Your task to perform on an android device: Add "logitech g pro" to the cart on ebay, then select checkout. Image 0: 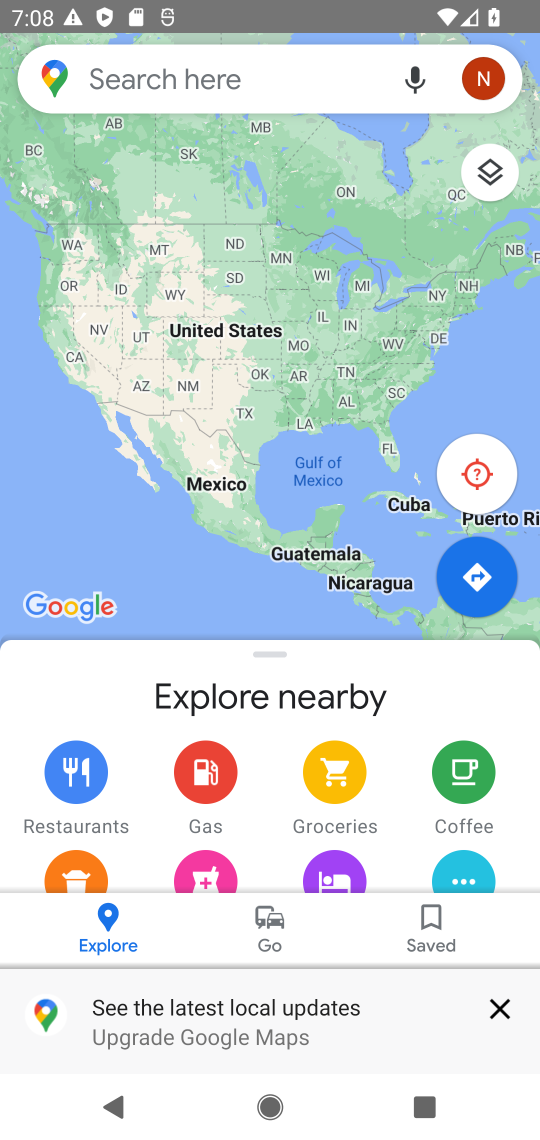
Step 0: press home button
Your task to perform on an android device: Add "logitech g pro" to the cart on ebay, then select checkout. Image 1: 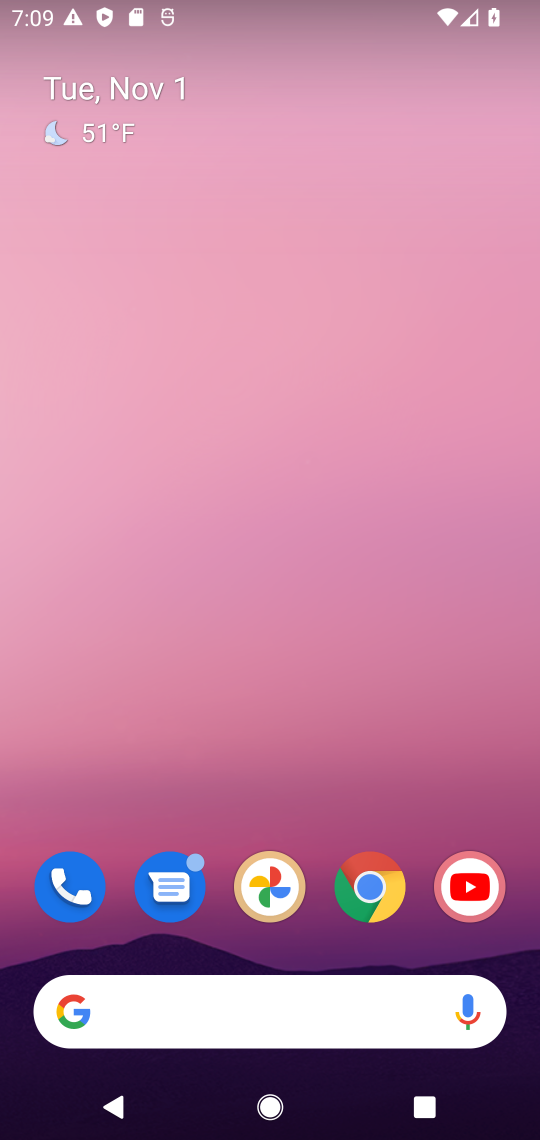
Step 1: drag from (191, 690) to (193, 65)
Your task to perform on an android device: Add "logitech g pro" to the cart on ebay, then select checkout. Image 2: 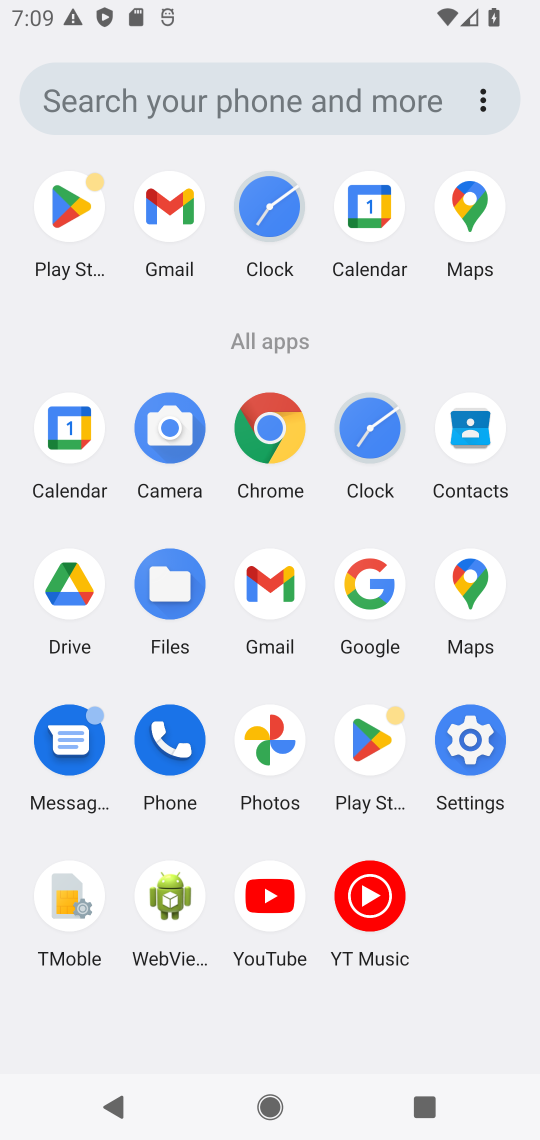
Step 2: click (367, 565)
Your task to perform on an android device: Add "logitech g pro" to the cart on ebay, then select checkout. Image 3: 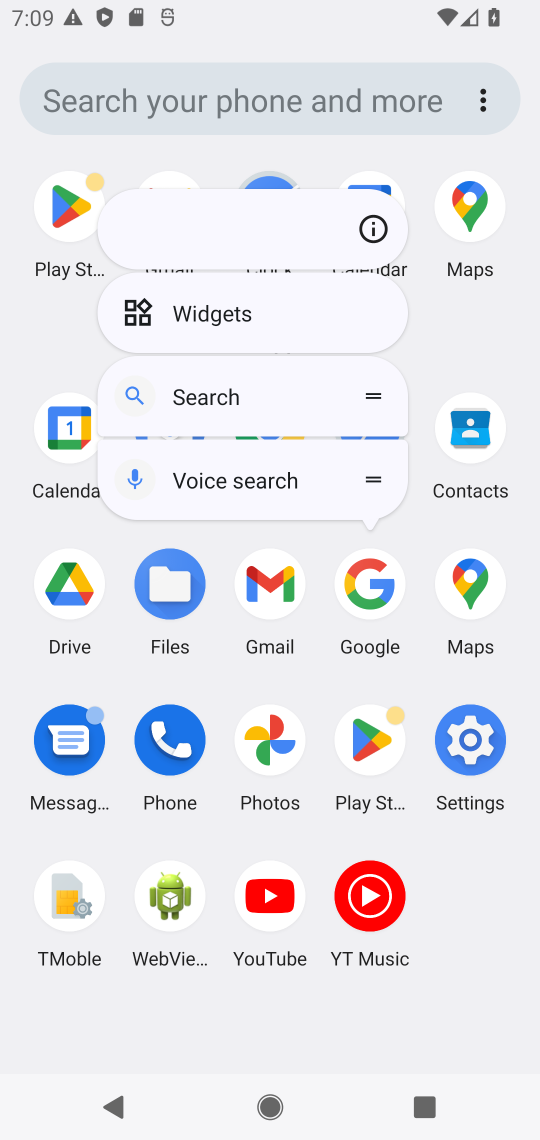
Step 3: click (367, 565)
Your task to perform on an android device: Add "logitech g pro" to the cart on ebay, then select checkout. Image 4: 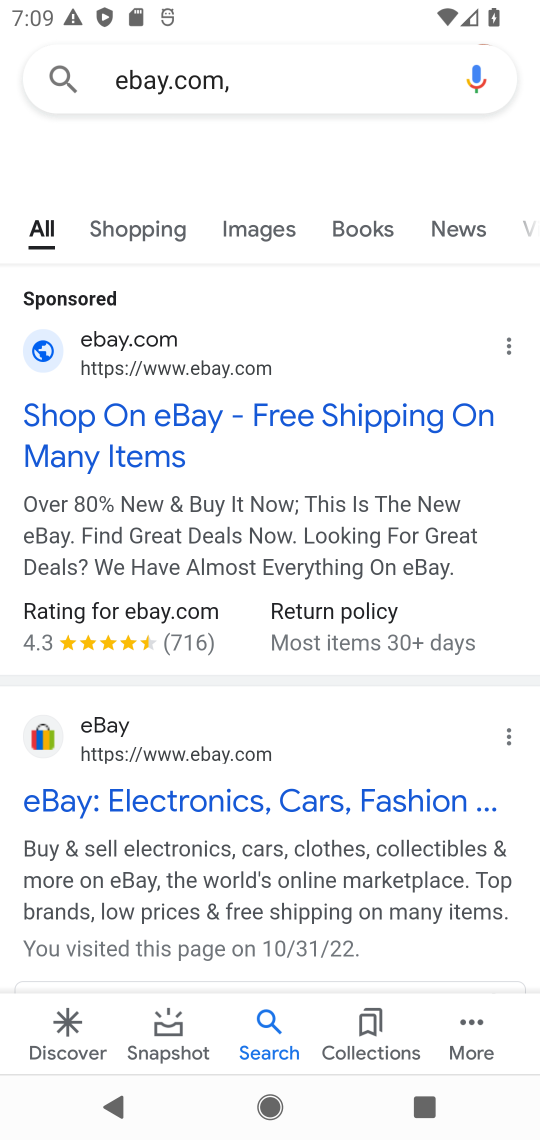
Step 4: click (125, 802)
Your task to perform on an android device: Add "logitech g pro" to the cart on ebay, then select checkout. Image 5: 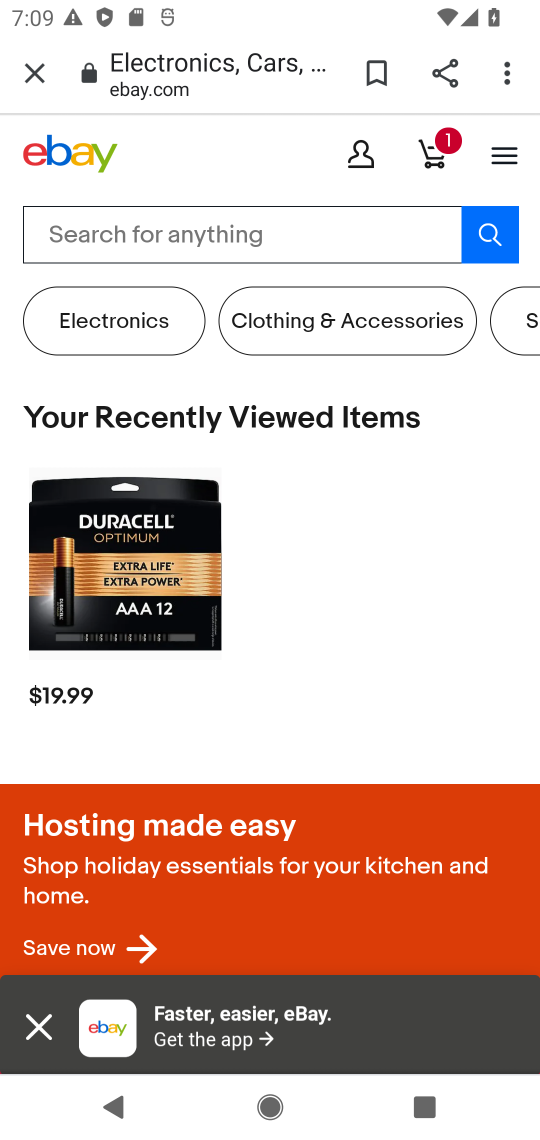
Step 5: click (252, 210)
Your task to perform on an android device: Add "logitech g pro" to the cart on ebay, then select checkout. Image 6: 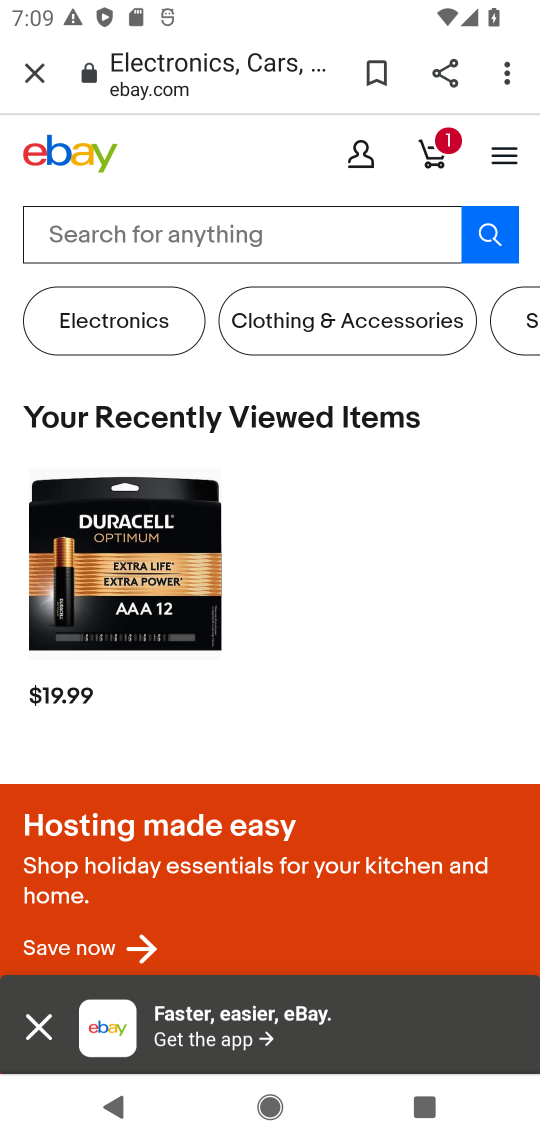
Step 6: type "logitech g pro "
Your task to perform on an android device: Add "logitech g pro" to the cart on ebay, then select checkout. Image 7: 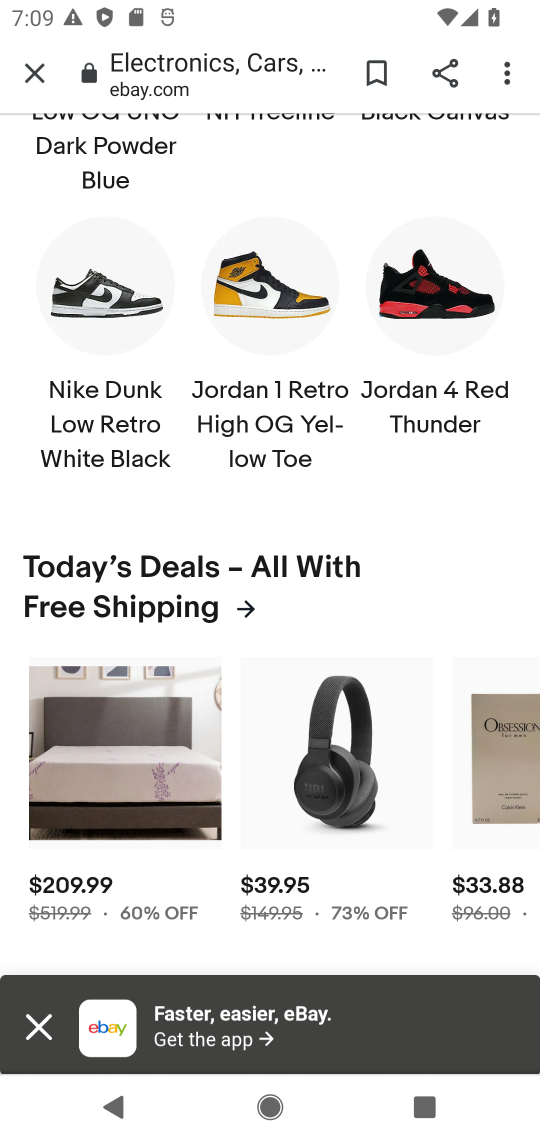
Step 7: drag from (139, 153) to (180, 936)
Your task to perform on an android device: Add "logitech g pro" to the cart on ebay, then select checkout. Image 8: 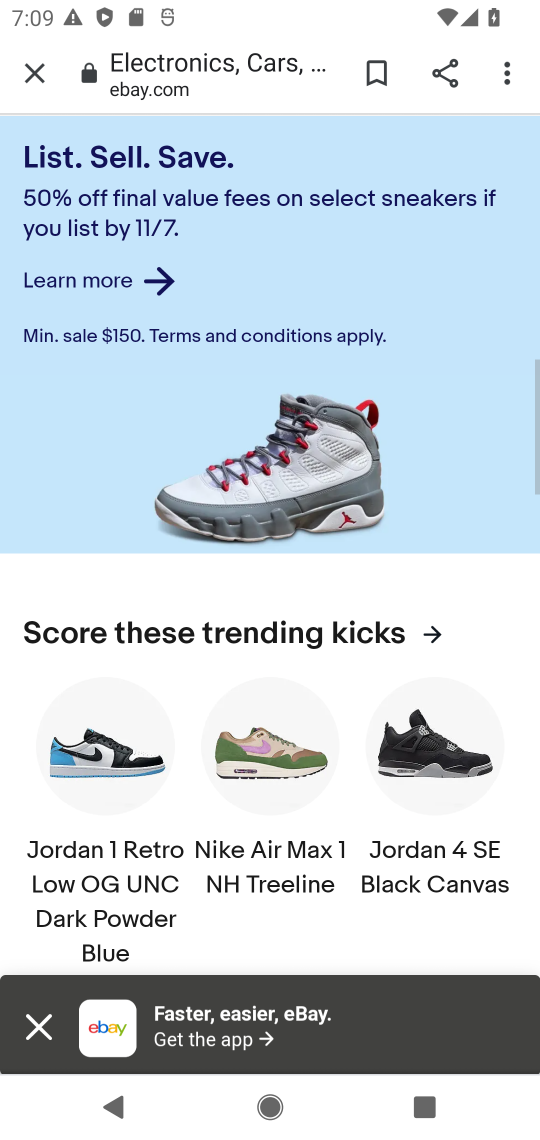
Step 8: drag from (232, 256) to (206, 1028)
Your task to perform on an android device: Add "logitech g pro" to the cart on ebay, then select checkout. Image 9: 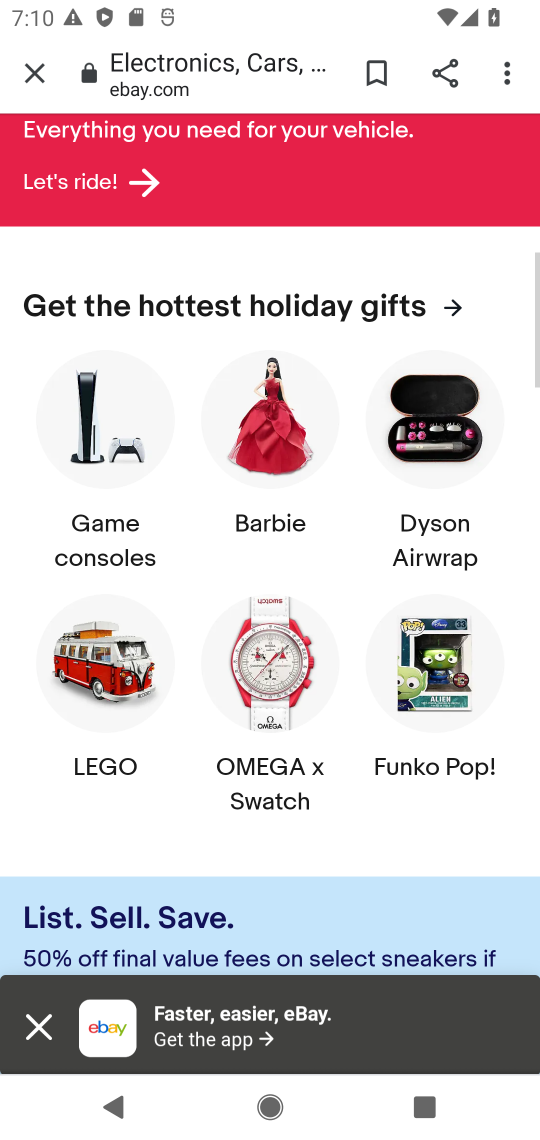
Step 9: drag from (295, 222) to (257, 804)
Your task to perform on an android device: Add "logitech g pro" to the cart on ebay, then select checkout. Image 10: 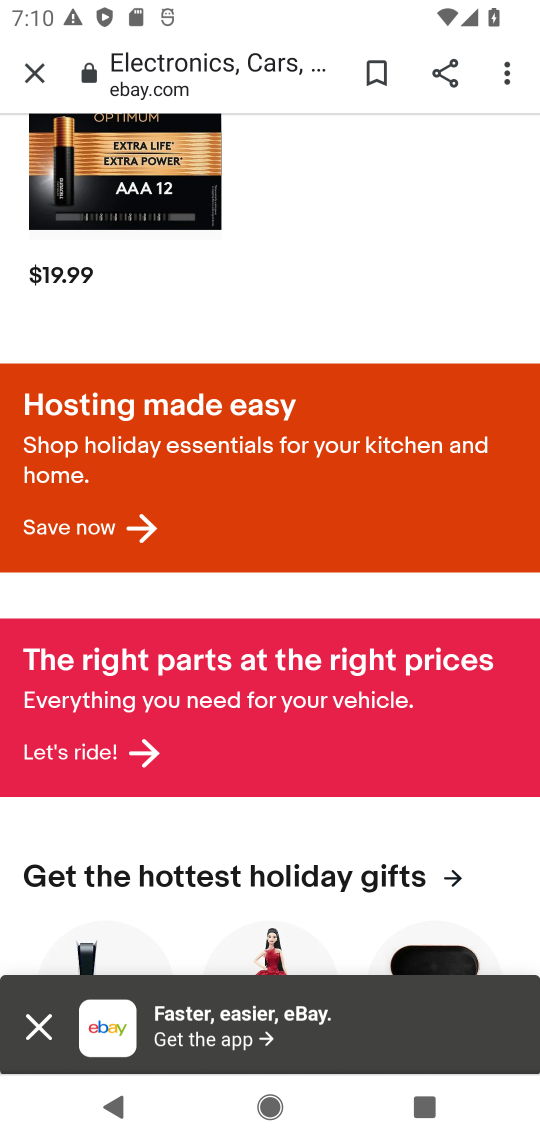
Step 10: click (9, 999)
Your task to perform on an android device: Add "logitech g pro" to the cart on ebay, then select checkout. Image 11: 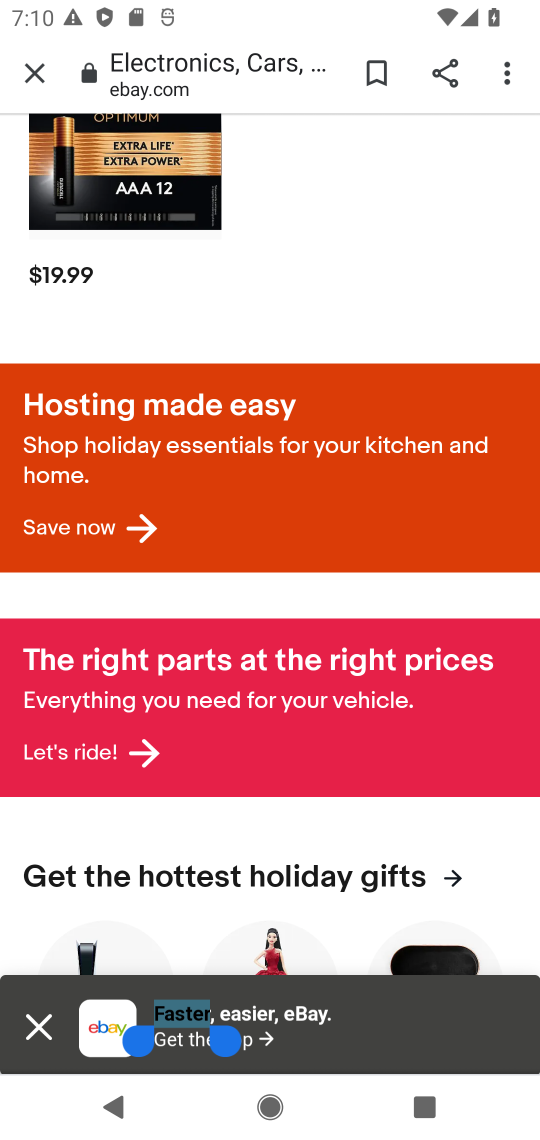
Step 11: click (26, 1013)
Your task to perform on an android device: Add "logitech g pro" to the cart on ebay, then select checkout. Image 12: 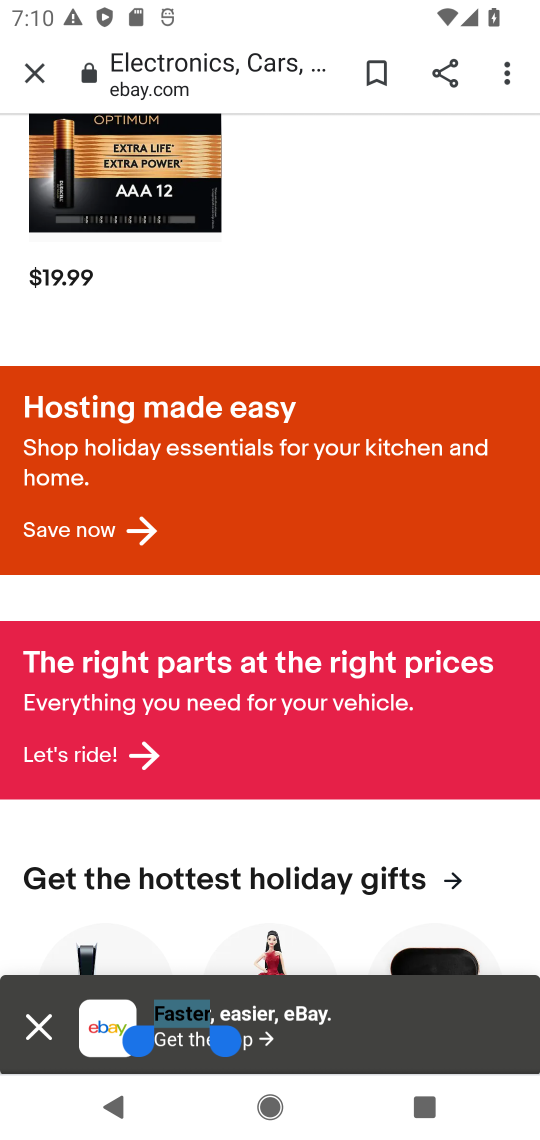
Step 12: click (45, 1037)
Your task to perform on an android device: Add "logitech g pro" to the cart on ebay, then select checkout. Image 13: 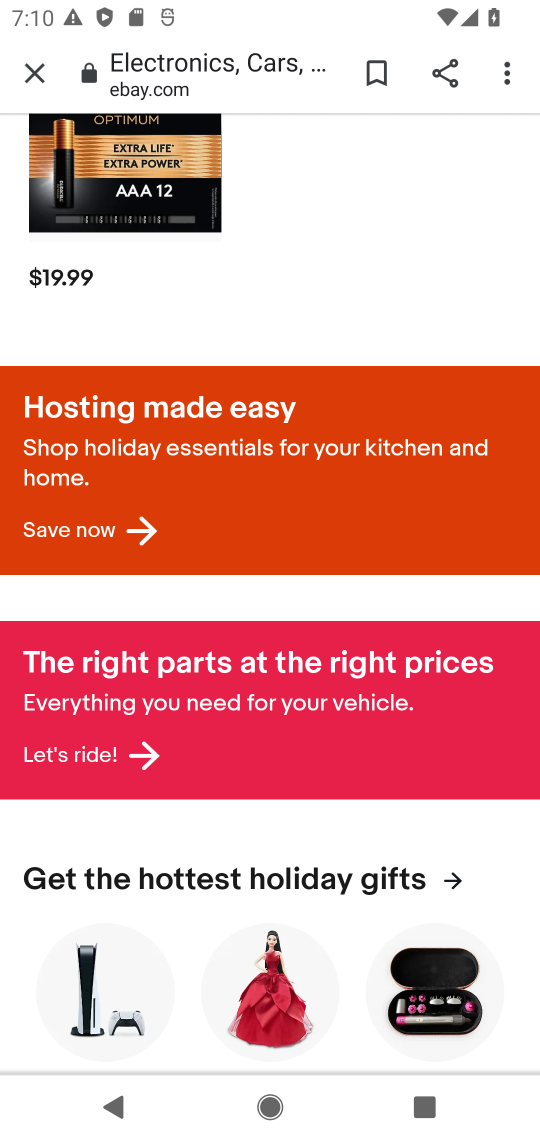
Step 13: press back button
Your task to perform on an android device: Add "logitech g pro" to the cart on ebay, then select checkout. Image 14: 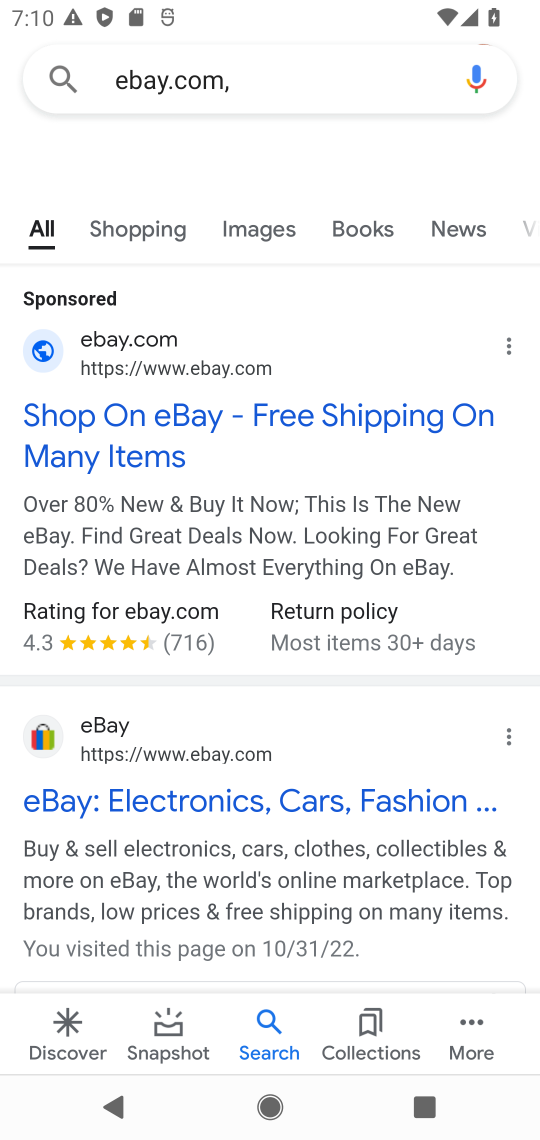
Step 14: click (139, 789)
Your task to perform on an android device: Add "logitech g pro" to the cart on ebay, then select checkout. Image 15: 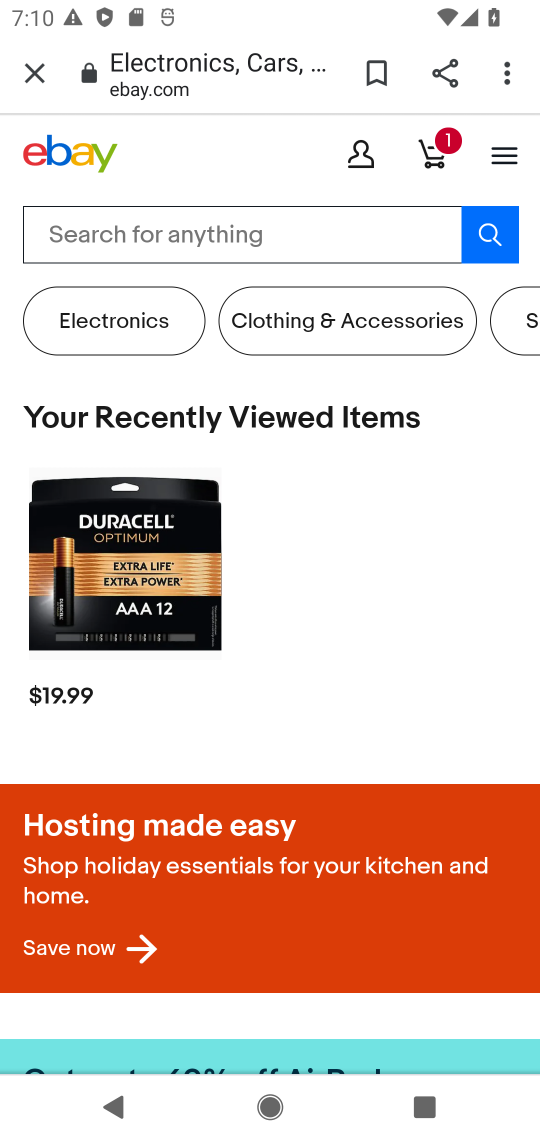
Step 15: click (260, 215)
Your task to perform on an android device: Add "logitech g pro" to the cart on ebay, then select checkout. Image 16: 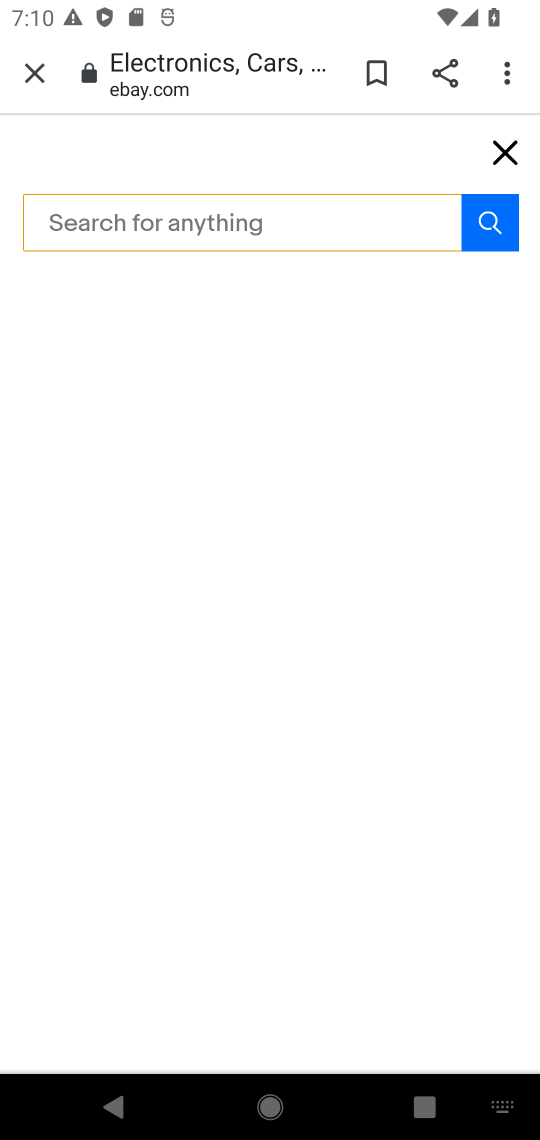
Step 16: type "logitech g pro "
Your task to perform on an android device: Add "logitech g pro" to the cart on ebay, then select checkout. Image 17: 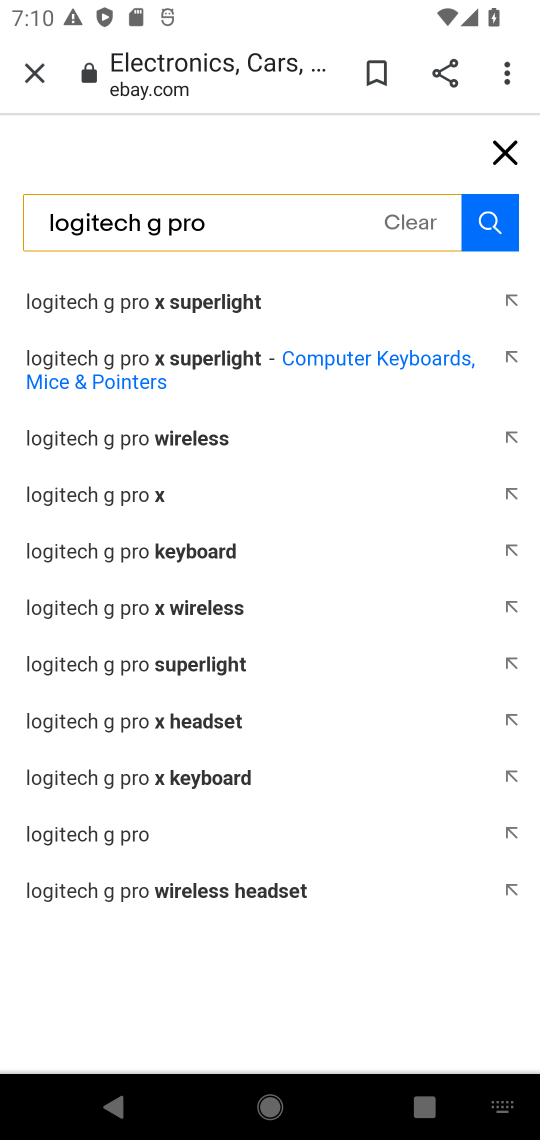
Step 17: click (128, 299)
Your task to perform on an android device: Add "logitech g pro" to the cart on ebay, then select checkout. Image 18: 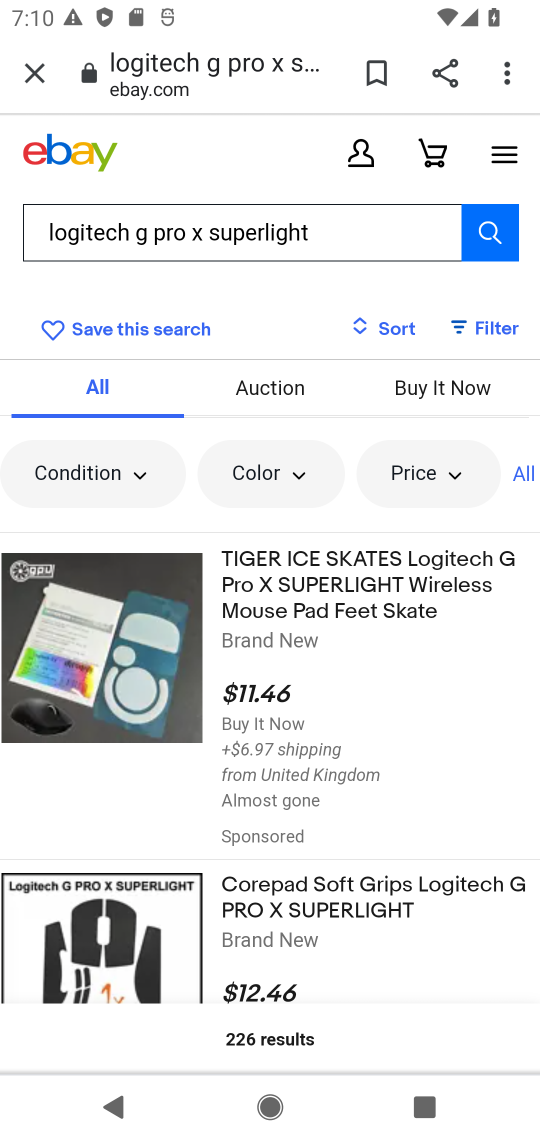
Step 18: click (348, 588)
Your task to perform on an android device: Add "logitech g pro" to the cart on ebay, then select checkout. Image 19: 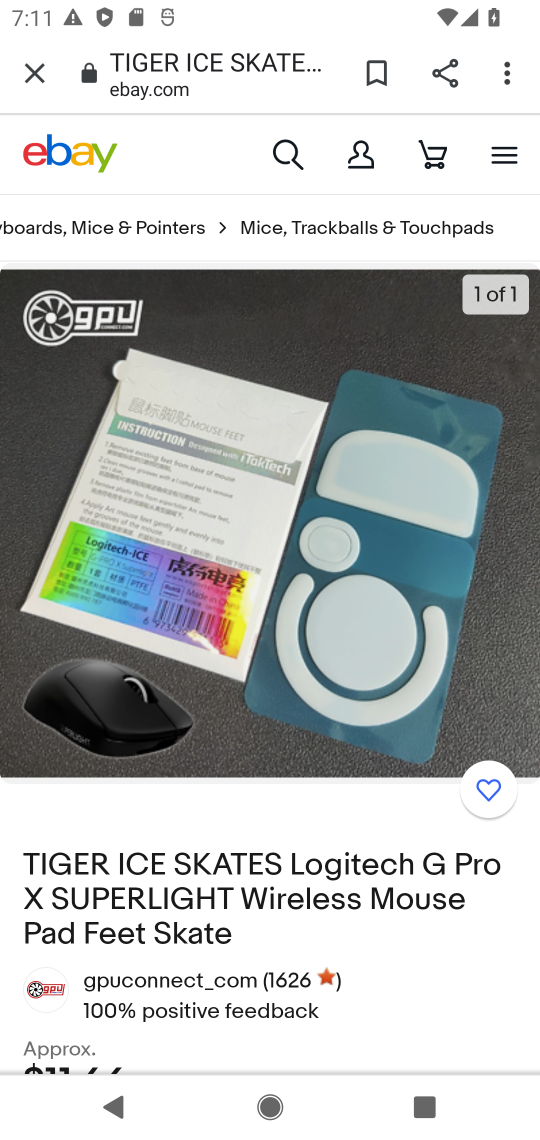
Step 19: drag from (296, 806) to (367, 267)
Your task to perform on an android device: Add "logitech g pro" to the cart on ebay, then select checkout. Image 20: 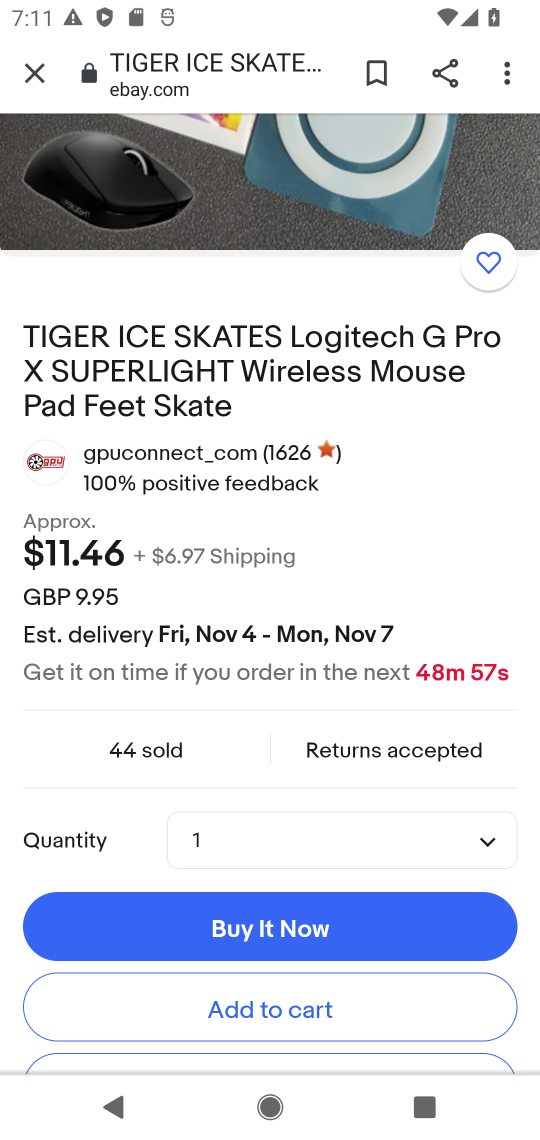
Step 20: click (322, 1014)
Your task to perform on an android device: Add "logitech g pro" to the cart on ebay, then select checkout. Image 21: 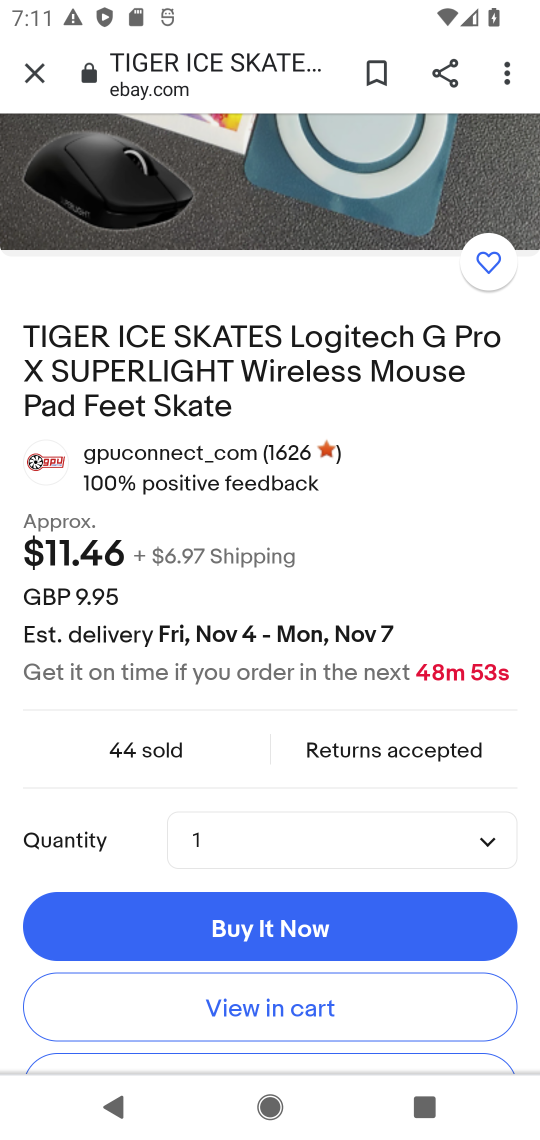
Step 21: task complete